Your task to perform on an android device: Open CNN.com Image 0: 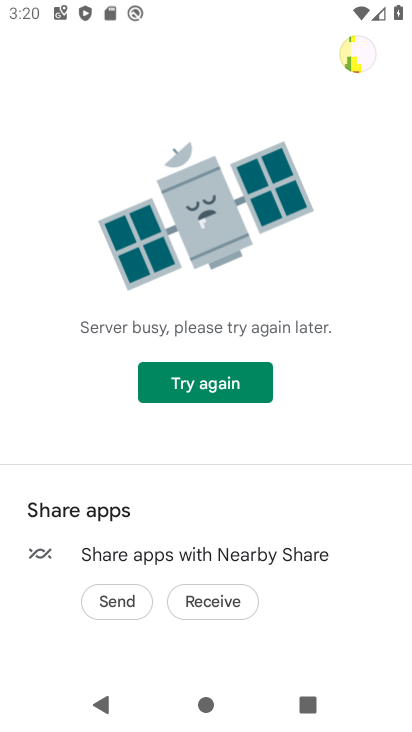
Step 0: press home button
Your task to perform on an android device: Open CNN.com Image 1: 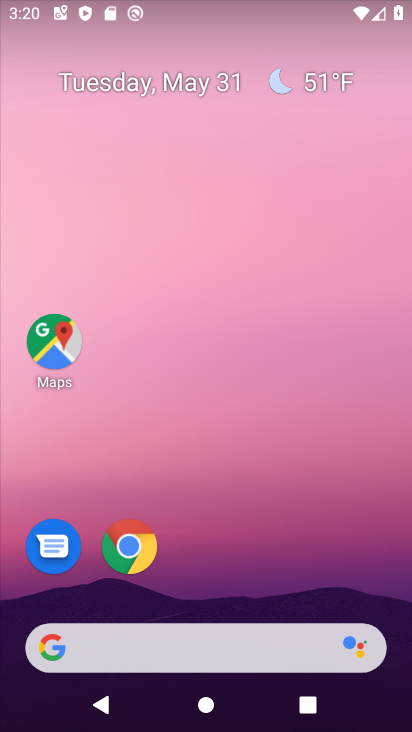
Step 1: click (137, 551)
Your task to perform on an android device: Open CNN.com Image 2: 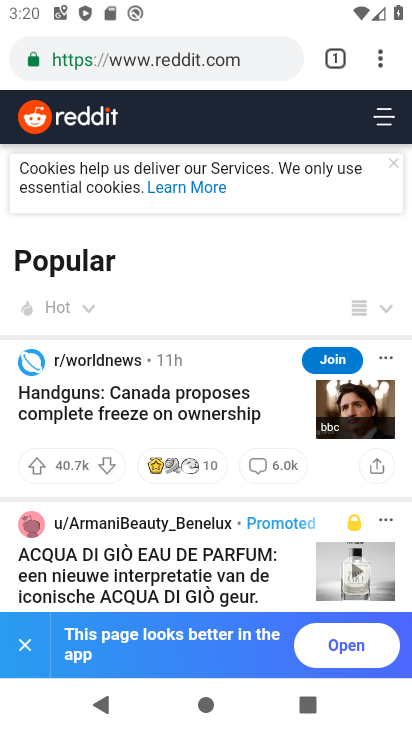
Step 2: click (172, 65)
Your task to perform on an android device: Open CNN.com Image 3: 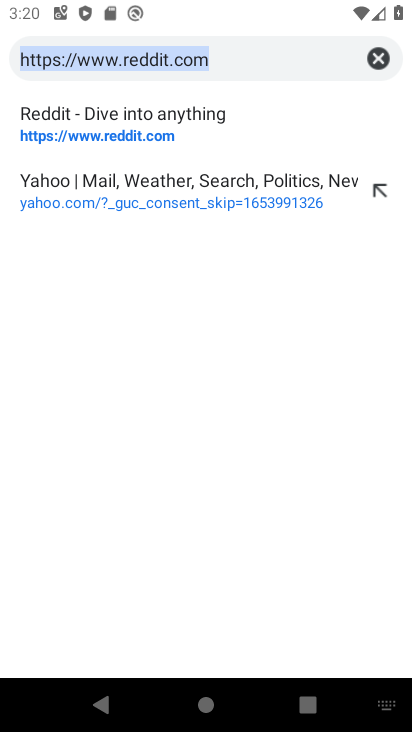
Step 3: type "www.cnn.com"
Your task to perform on an android device: Open CNN.com Image 4: 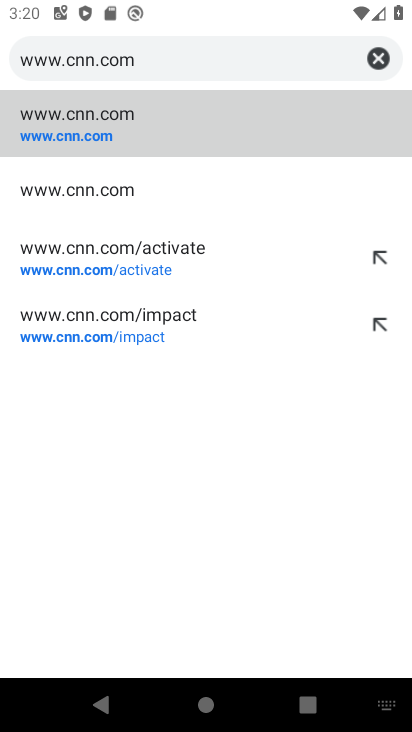
Step 4: click (69, 139)
Your task to perform on an android device: Open CNN.com Image 5: 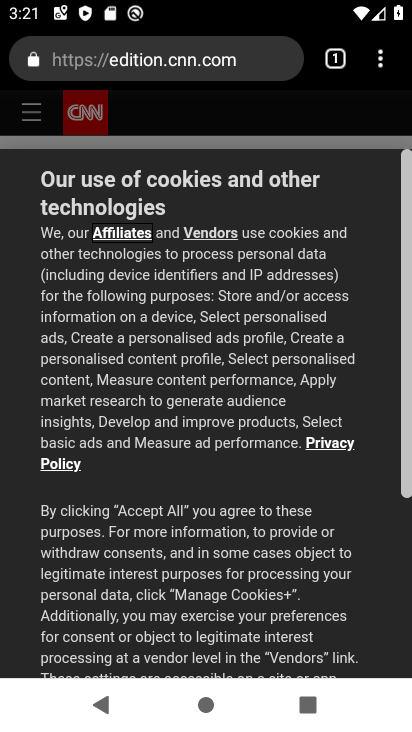
Step 5: task complete